Your task to perform on an android device: move an email to a new category in the gmail app Image 0: 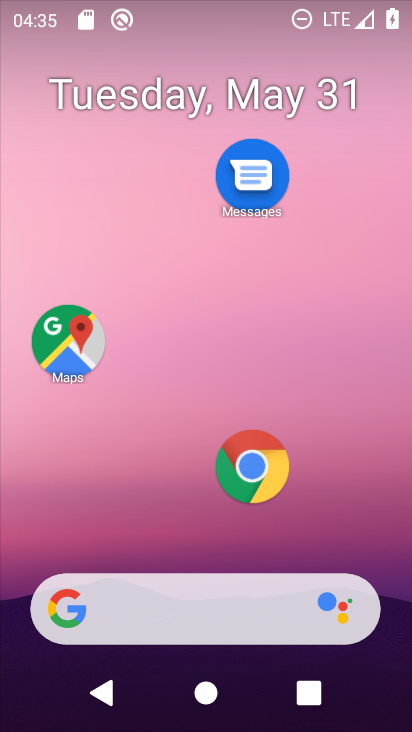
Step 0: drag from (141, 555) to (227, 38)
Your task to perform on an android device: move an email to a new category in the gmail app Image 1: 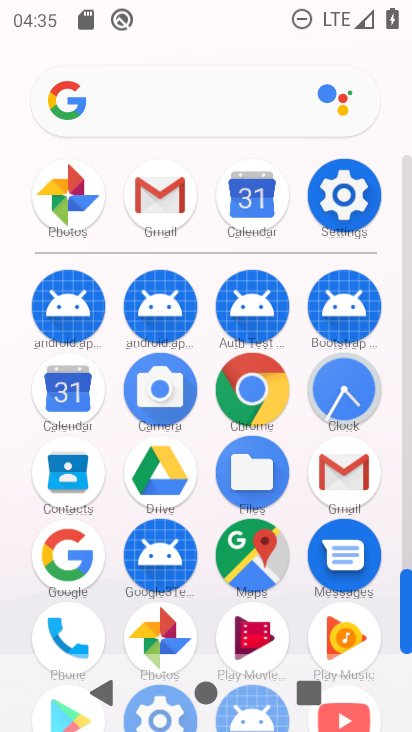
Step 1: click (174, 190)
Your task to perform on an android device: move an email to a new category in the gmail app Image 2: 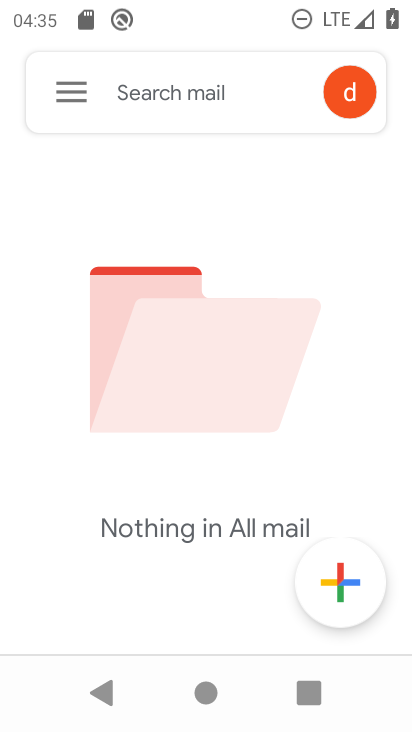
Step 2: task complete